Your task to perform on an android device: turn off picture-in-picture Image 0: 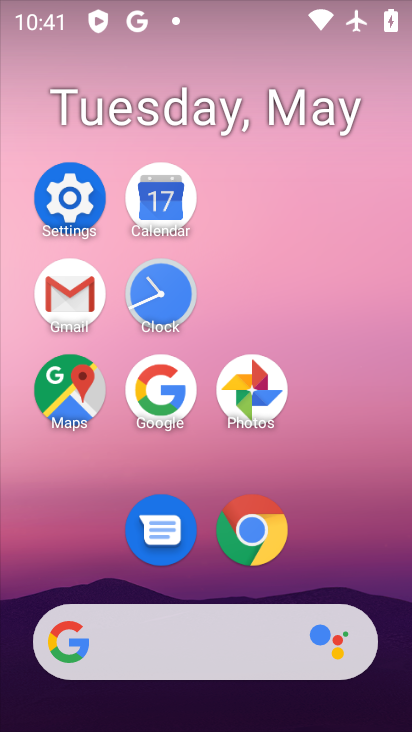
Step 0: click (264, 538)
Your task to perform on an android device: turn off picture-in-picture Image 1: 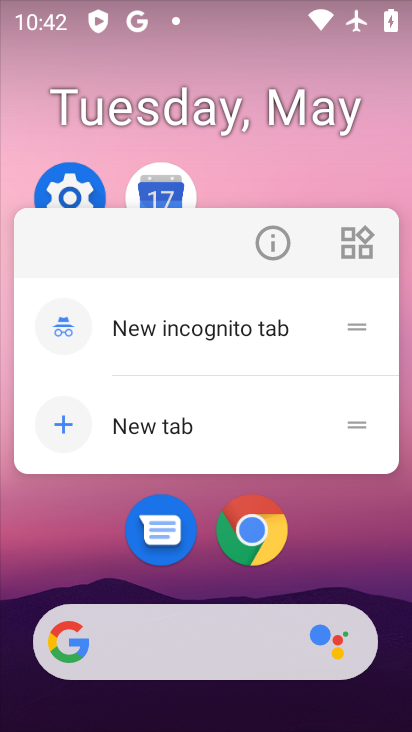
Step 1: click (268, 250)
Your task to perform on an android device: turn off picture-in-picture Image 2: 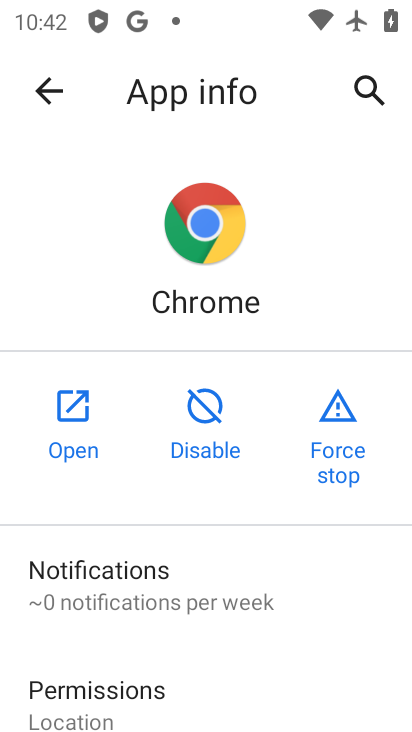
Step 2: drag from (262, 649) to (276, 196)
Your task to perform on an android device: turn off picture-in-picture Image 3: 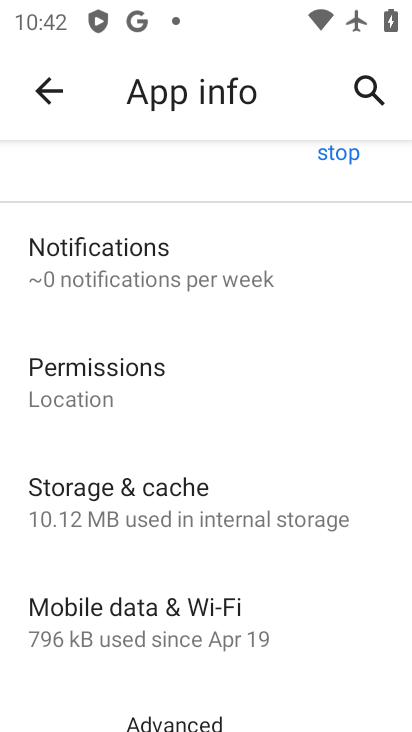
Step 3: drag from (239, 594) to (274, 252)
Your task to perform on an android device: turn off picture-in-picture Image 4: 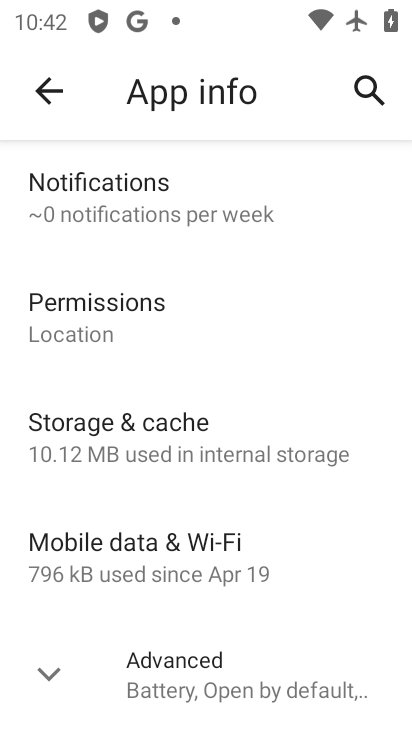
Step 4: click (188, 657)
Your task to perform on an android device: turn off picture-in-picture Image 5: 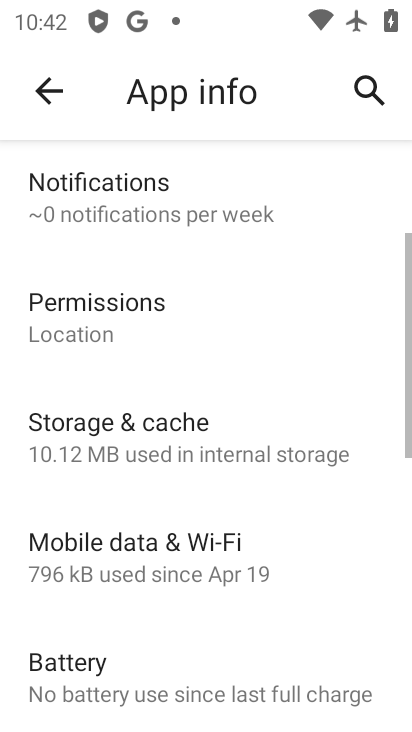
Step 5: drag from (178, 605) to (231, 221)
Your task to perform on an android device: turn off picture-in-picture Image 6: 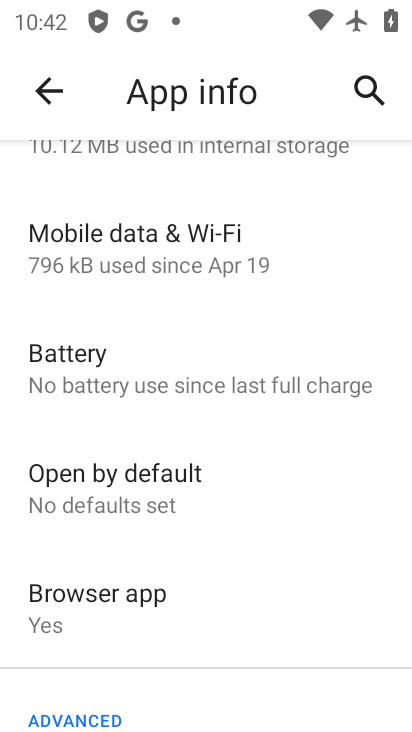
Step 6: drag from (308, 644) to (251, 196)
Your task to perform on an android device: turn off picture-in-picture Image 7: 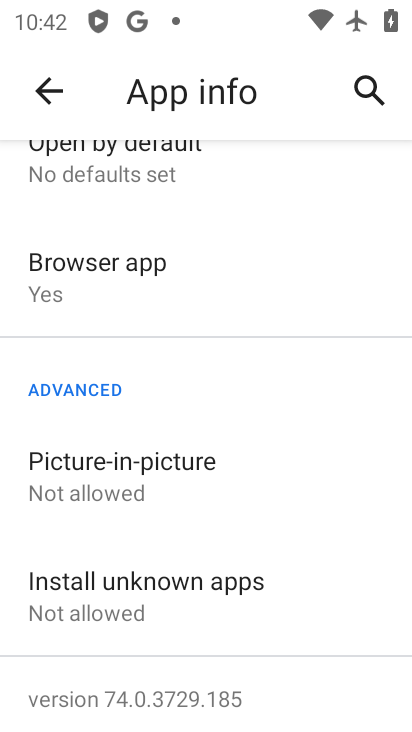
Step 7: click (199, 479)
Your task to perform on an android device: turn off picture-in-picture Image 8: 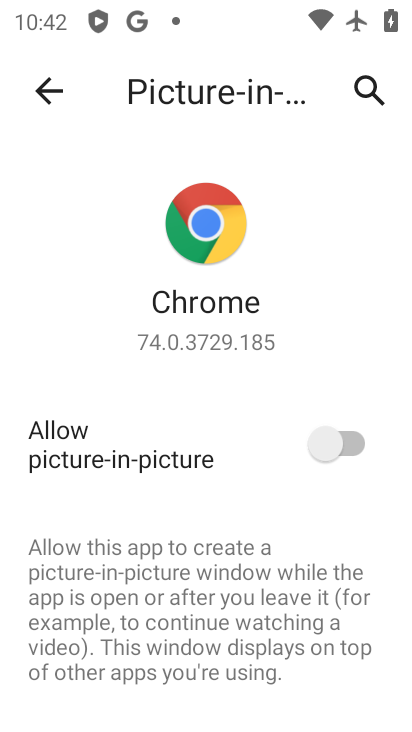
Step 8: task complete